Your task to perform on an android device: change the clock display to show seconds Image 0: 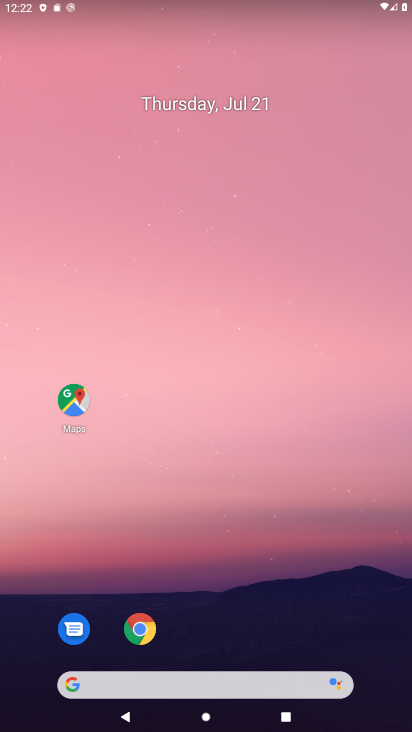
Step 0: drag from (349, 655) to (279, 186)
Your task to perform on an android device: change the clock display to show seconds Image 1: 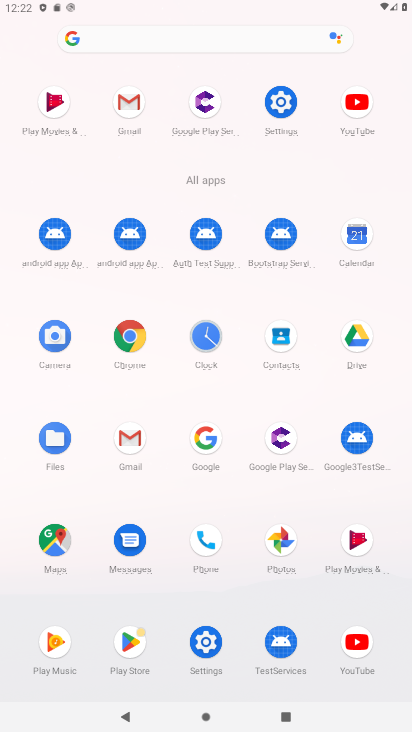
Step 1: click (209, 336)
Your task to perform on an android device: change the clock display to show seconds Image 2: 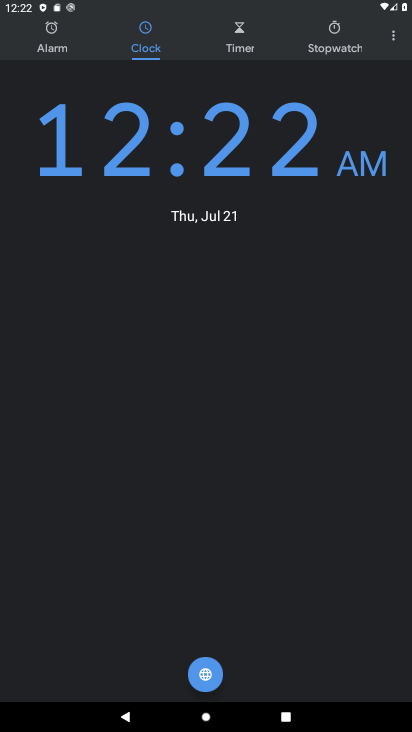
Step 2: click (396, 47)
Your task to perform on an android device: change the clock display to show seconds Image 3: 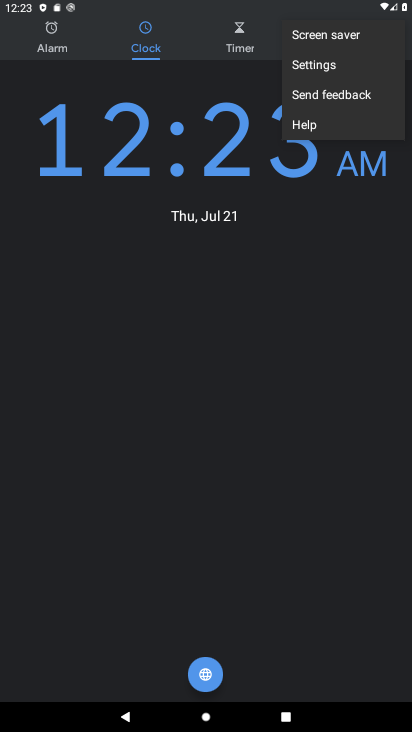
Step 3: click (352, 64)
Your task to perform on an android device: change the clock display to show seconds Image 4: 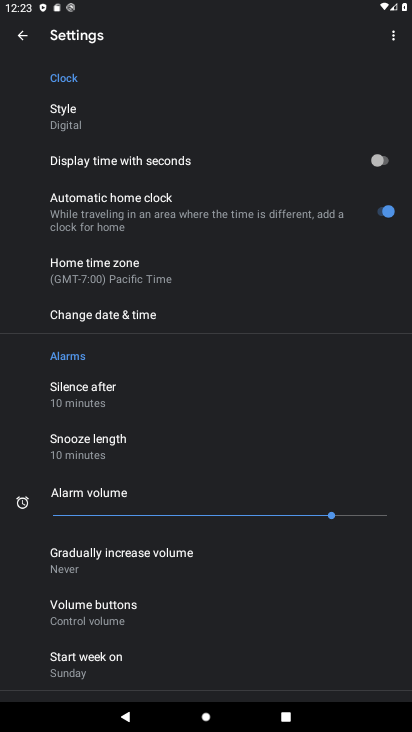
Step 4: click (386, 168)
Your task to perform on an android device: change the clock display to show seconds Image 5: 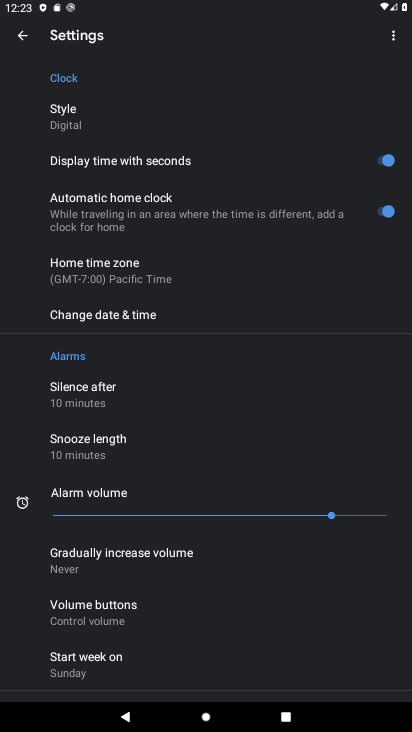
Step 5: task complete